Your task to perform on an android device: toggle notification dots Image 0: 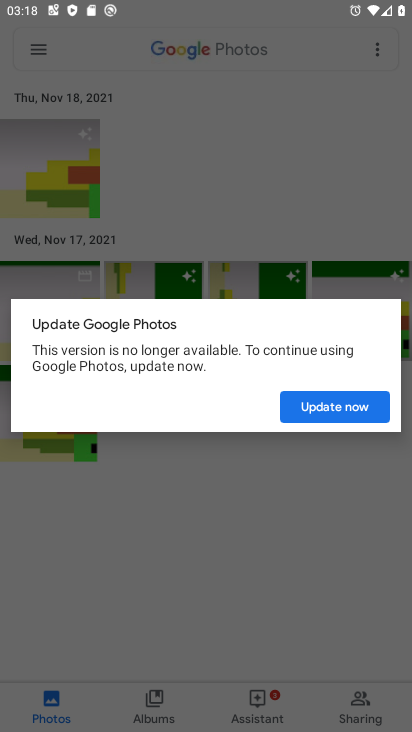
Step 0: press back button
Your task to perform on an android device: toggle notification dots Image 1: 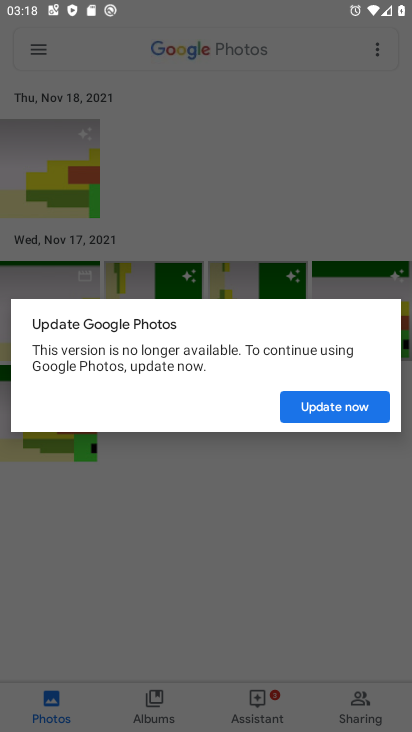
Step 1: press home button
Your task to perform on an android device: toggle notification dots Image 2: 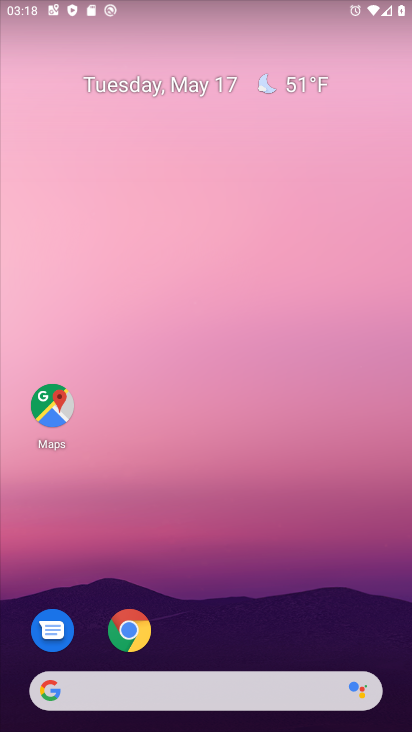
Step 2: drag from (164, 514) to (246, 58)
Your task to perform on an android device: toggle notification dots Image 3: 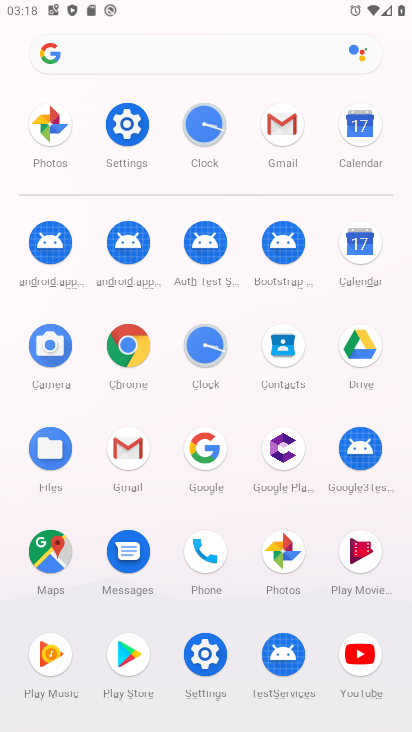
Step 3: click (123, 132)
Your task to perform on an android device: toggle notification dots Image 4: 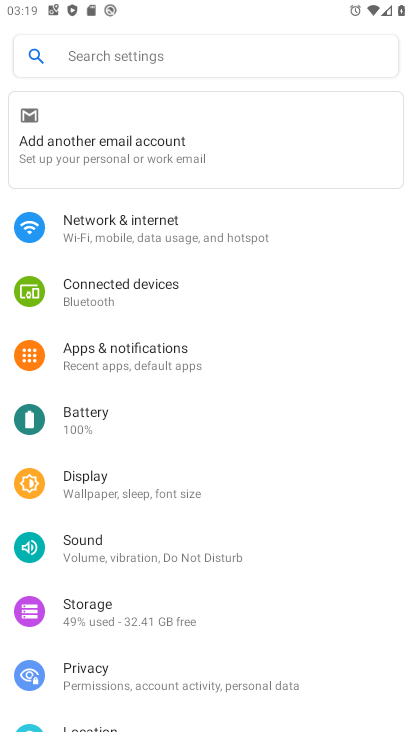
Step 4: click (140, 358)
Your task to perform on an android device: toggle notification dots Image 5: 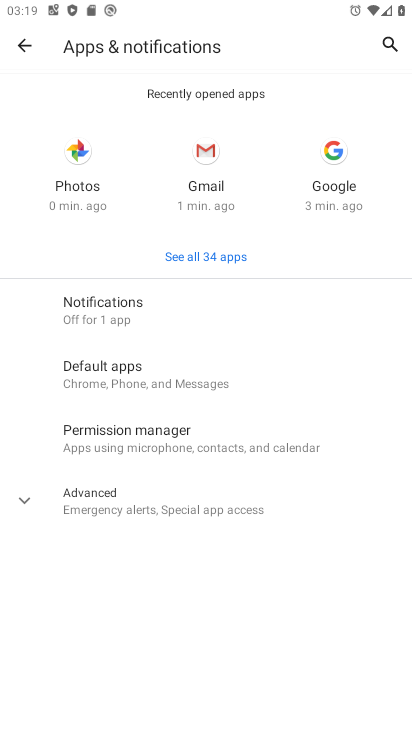
Step 5: click (124, 304)
Your task to perform on an android device: toggle notification dots Image 6: 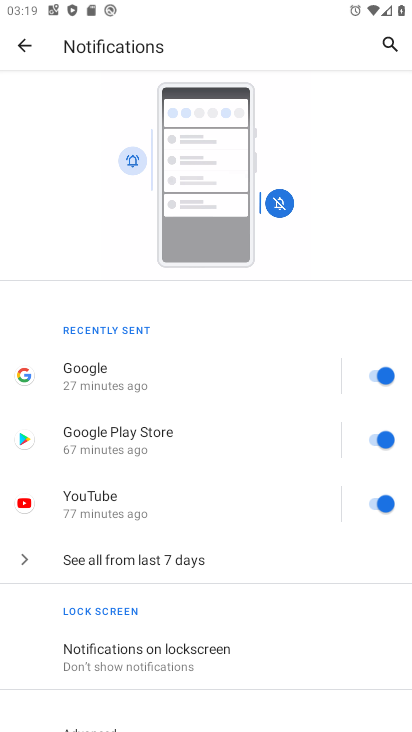
Step 6: drag from (174, 676) to (259, 270)
Your task to perform on an android device: toggle notification dots Image 7: 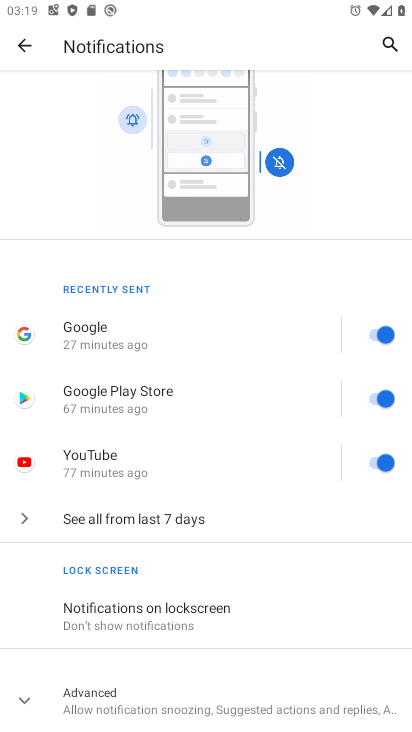
Step 7: click (130, 701)
Your task to perform on an android device: toggle notification dots Image 8: 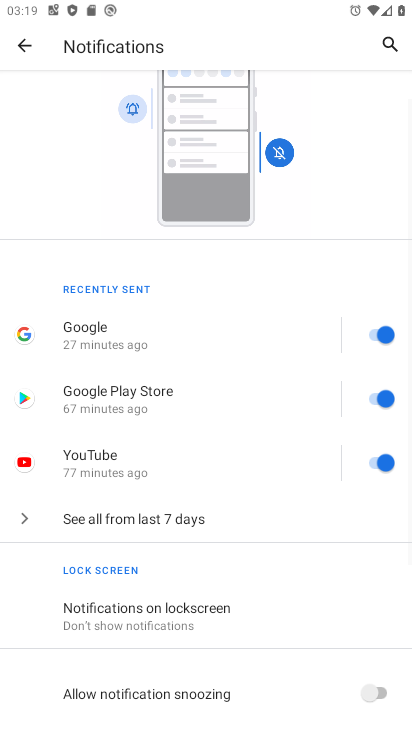
Step 8: drag from (155, 689) to (232, 237)
Your task to perform on an android device: toggle notification dots Image 9: 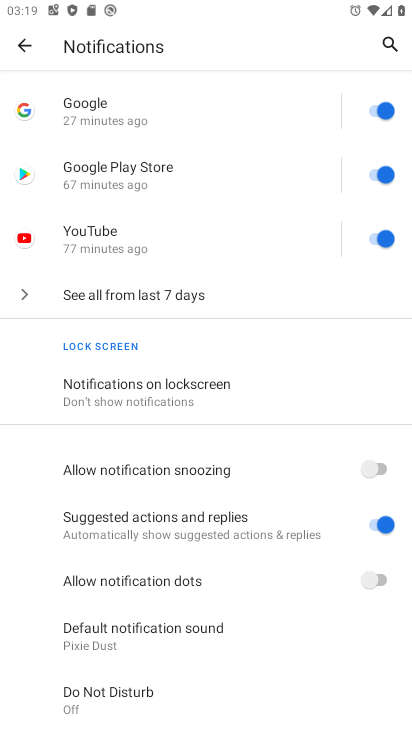
Step 9: click (384, 574)
Your task to perform on an android device: toggle notification dots Image 10: 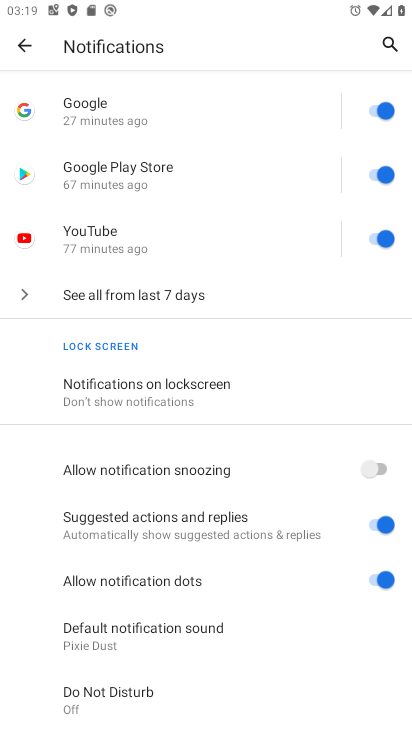
Step 10: task complete